Your task to perform on an android device: open chrome privacy settings Image 0: 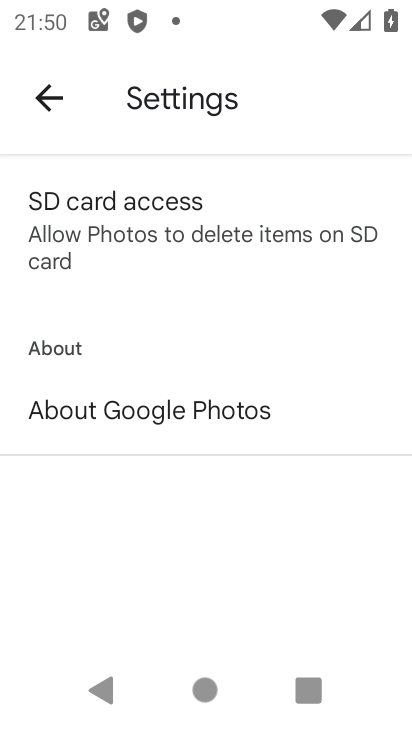
Step 0: press home button
Your task to perform on an android device: open chrome privacy settings Image 1: 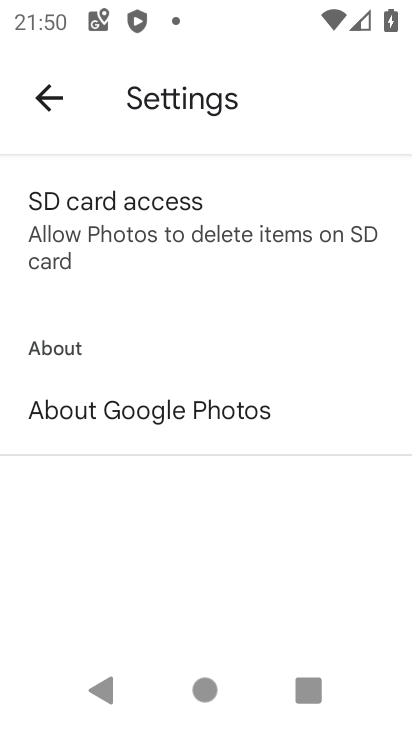
Step 1: press home button
Your task to perform on an android device: open chrome privacy settings Image 2: 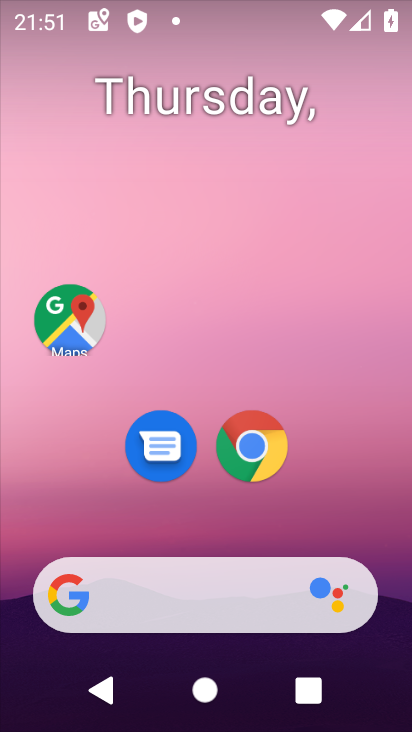
Step 2: click (247, 449)
Your task to perform on an android device: open chrome privacy settings Image 3: 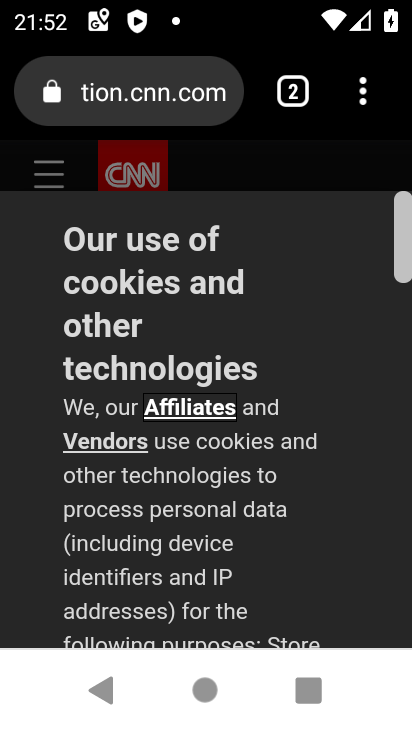
Step 3: drag from (372, 89) to (225, 476)
Your task to perform on an android device: open chrome privacy settings Image 4: 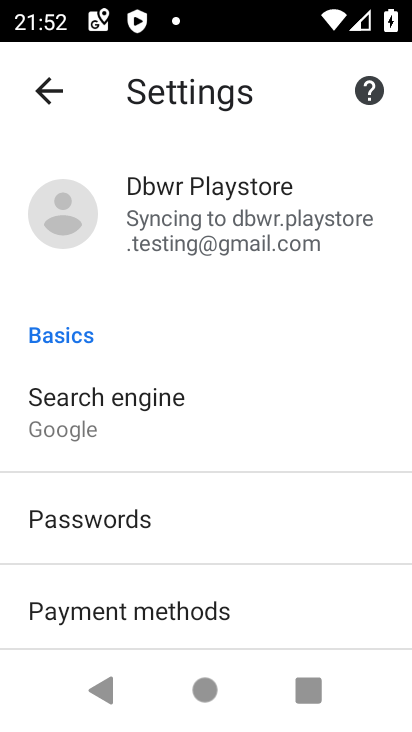
Step 4: drag from (307, 478) to (268, 160)
Your task to perform on an android device: open chrome privacy settings Image 5: 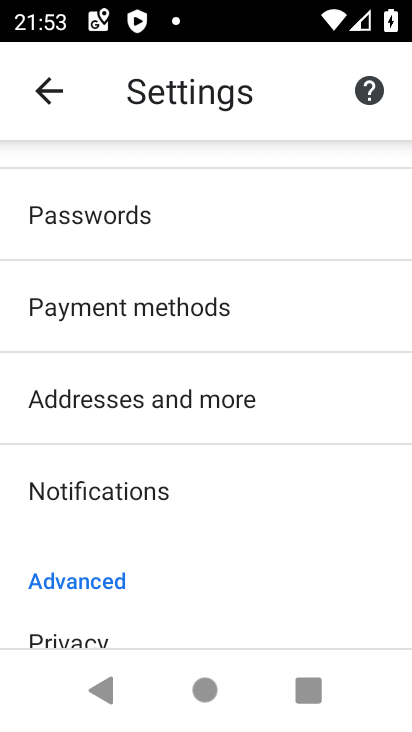
Step 5: drag from (242, 518) to (218, 370)
Your task to perform on an android device: open chrome privacy settings Image 6: 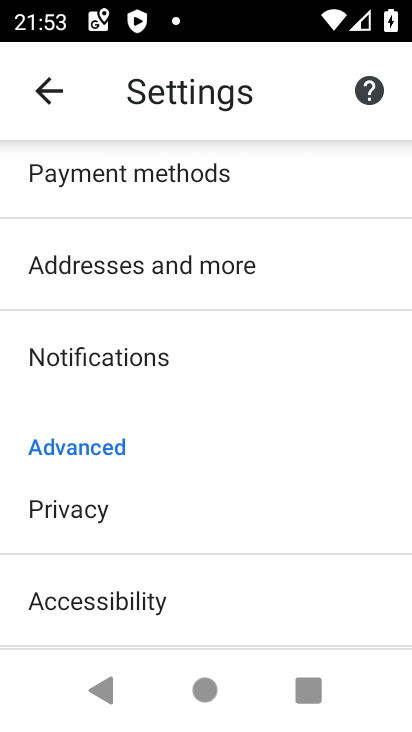
Step 6: click (115, 498)
Your task to perform on an android device: open chrome privacy settings Image 7: 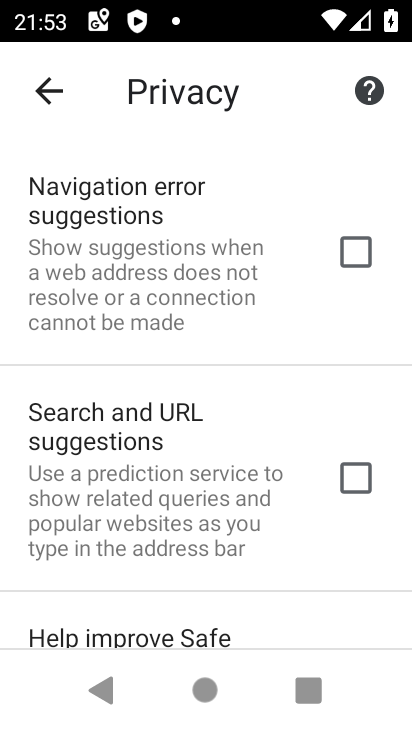
Step 7: task complete